Your task to perform on an android device: Open Google Chrome Image 0: 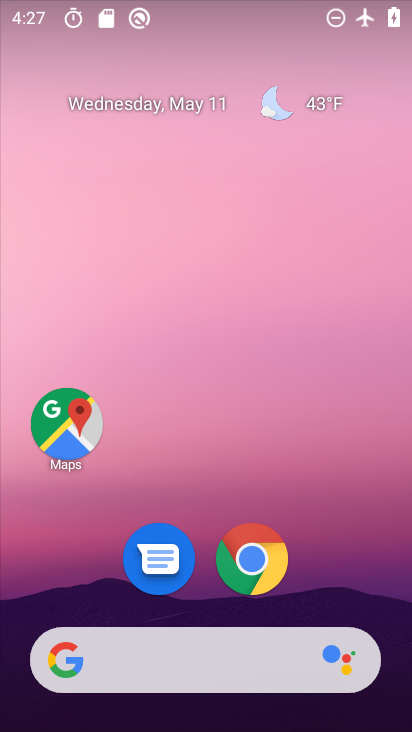
Step 0: drag from (339, 554) to (264, 126)
Your task to perform on an android device: Open Google Chrome Image 1: 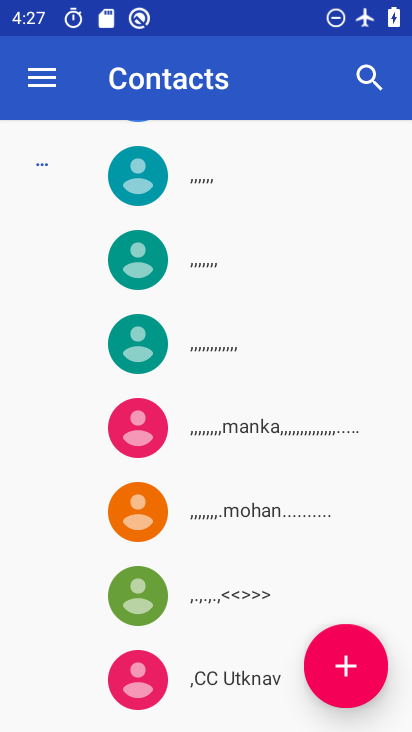
Step 1: press home button
Your task to perform on an android device: Open Google Chrome Image 2: 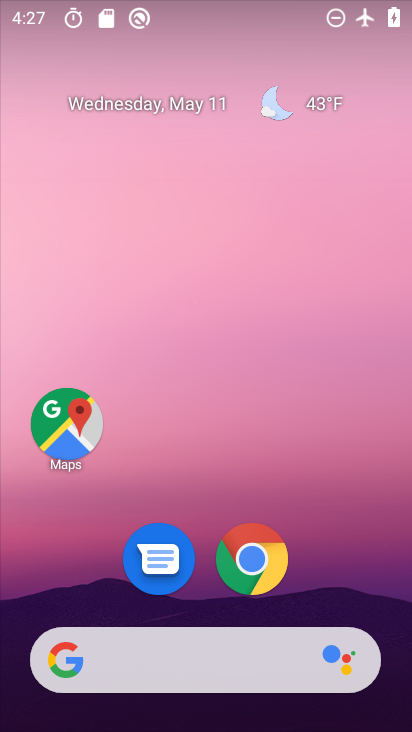
Step 2: drag from (343, 497) to (240, 79)
Your task to perform on an android device: Open Google Chrome Image 3: 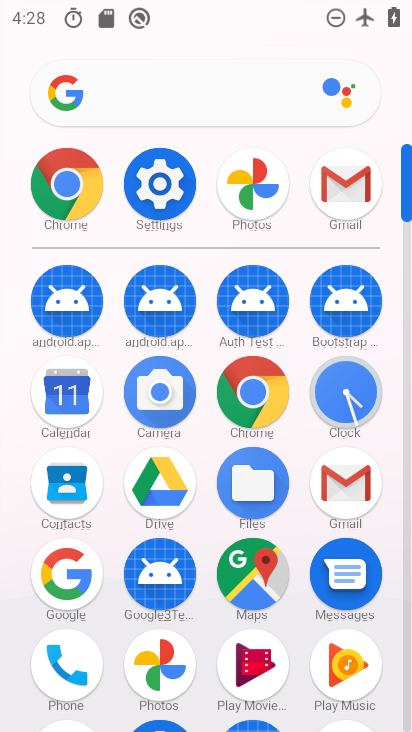
Step 3: click (255, 388)
Your task to perform on an android device: Open Google Chrome Image 4: 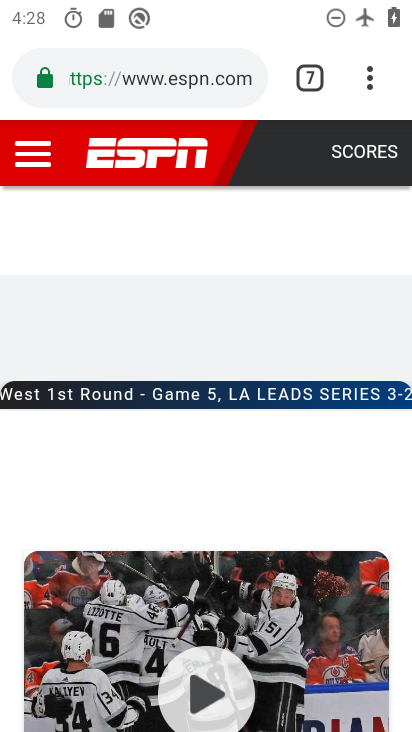
Step 4: task complete